Your task to perform on an android device: Show me the alarms in the clock app Image 0: 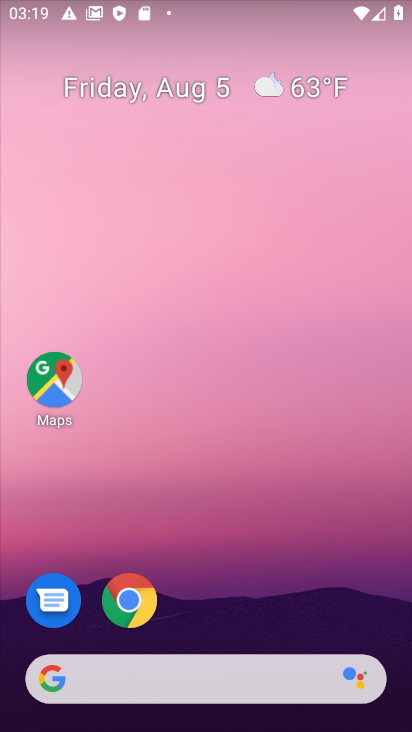
Step 0: drag from (195, 683) to (261, 74)
Your task to perform on an android device: Show me the alarms in the clock app Image 1: 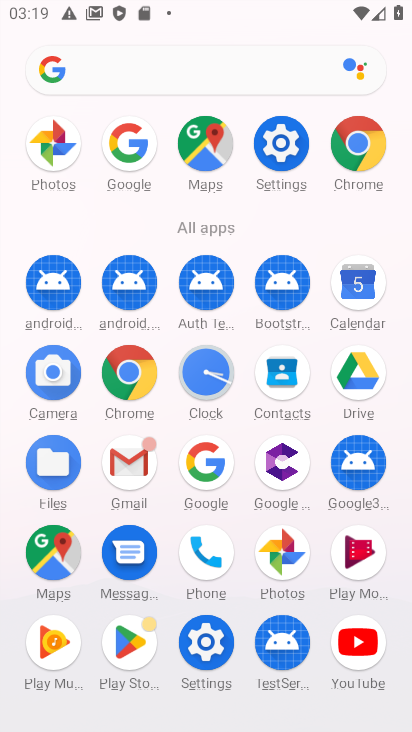
Step 1: click (207, 372)
Your task to perform on an android device: Show me the alarms in the clock app Image 2: 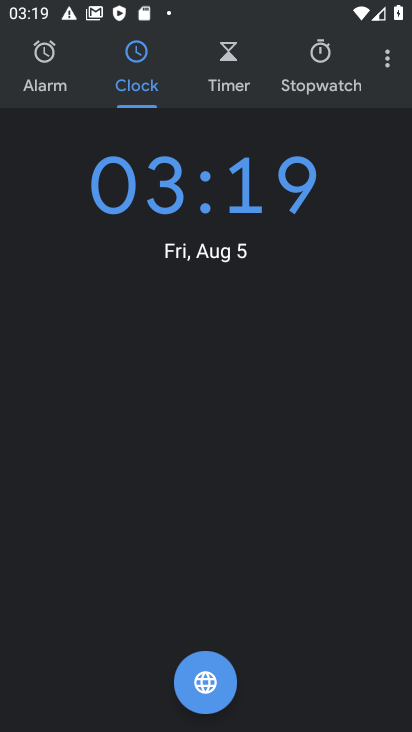
Step 2: click (49, 54)
Your task to perform on an android device: Show me the alarms in the clock app Image 3: 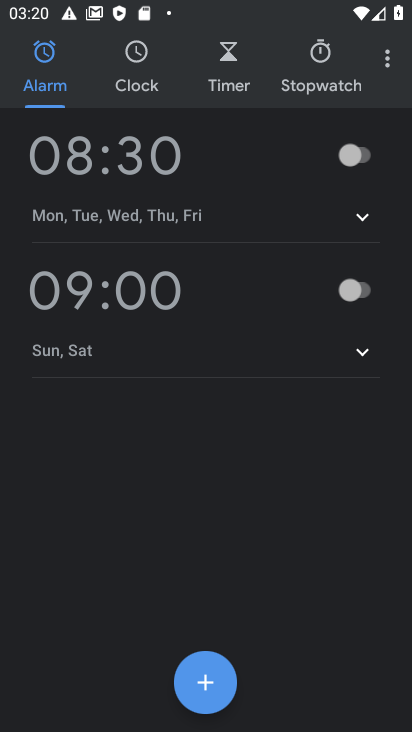
Step 3: click (160, 170)
Your task to perform on an android device: Show me the alarms in the clock app Image 4: 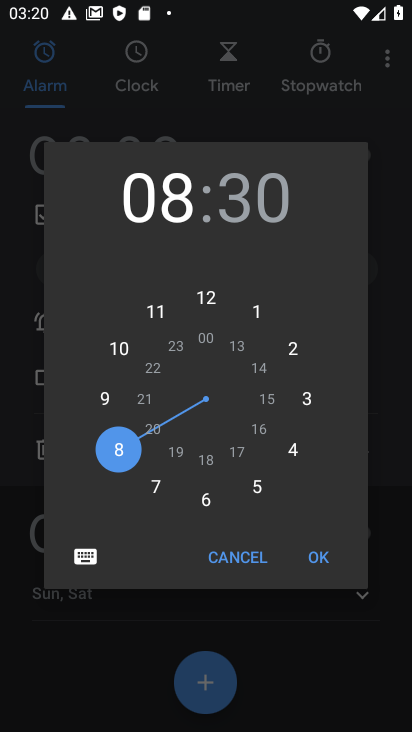
Step 4: click (207, 338)
Your task to perform on an android device: Show me the alarms in the clock app Image 5: 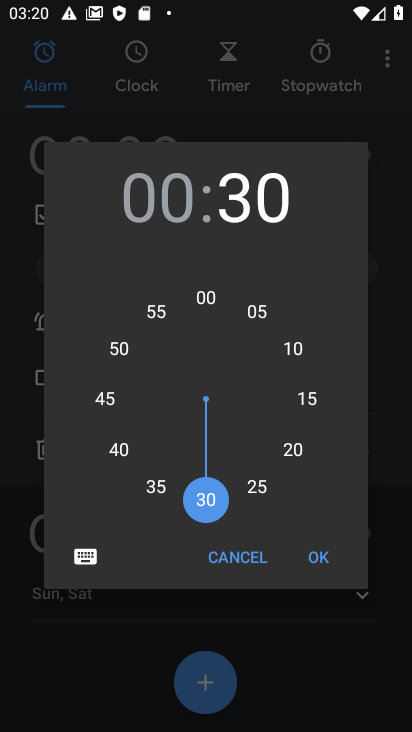
Step 5: click (297, 402)
Your task to perform on an android device: Show me the alarms in the clock app Image 6: 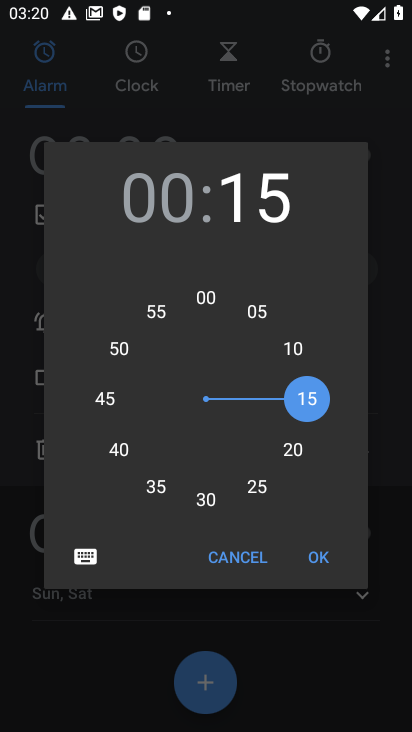
Step 6: click (317, 556)
Your task to perform on an android device: Show me the alarms in the clock app Image 7: 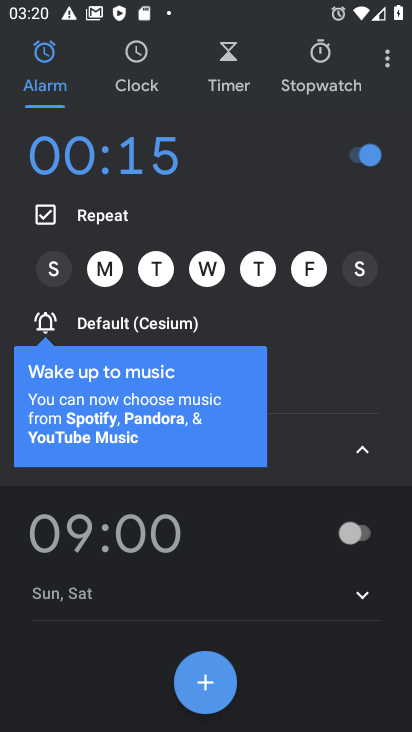
Step 7: click (360, 450)
Your task to perform on an android device: Show me the alarms in the clock app Image 8: 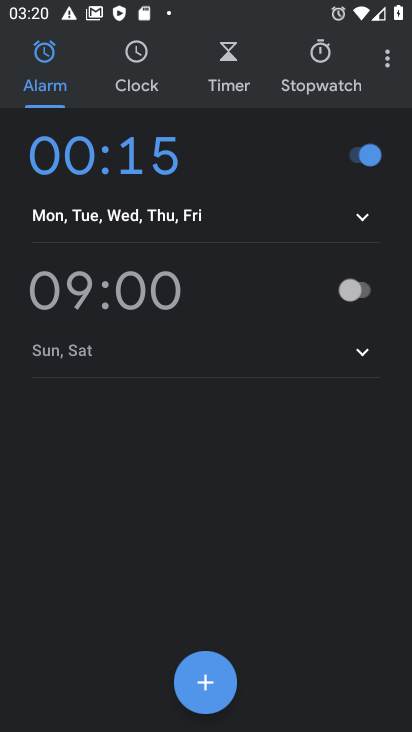
Step 8: task complete